Your task to perform on an android device: open the mobile data screen to see how much data has been used Image 0: 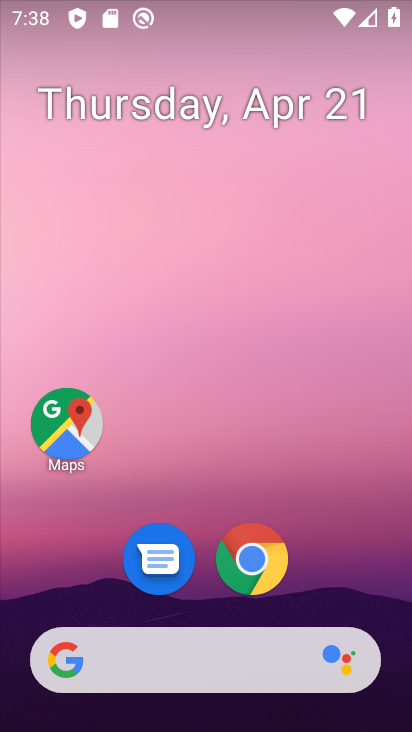
Step 0: click (192, 85)
Your task to perform on an android device: open the mobile data screen to see how much data has been used Image 1: 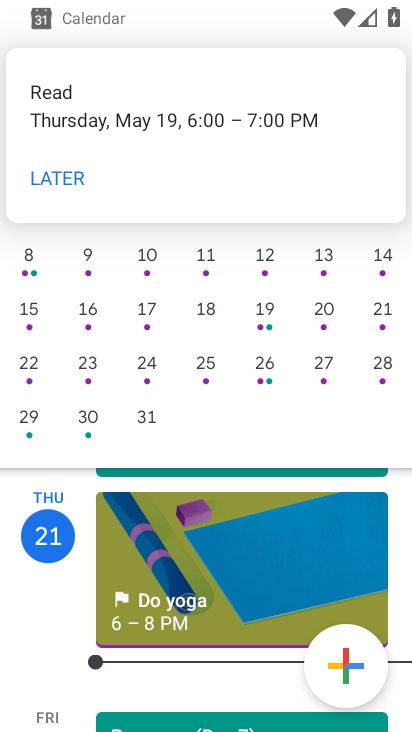
Step 1: click (76, 180)
Your task to perform on an android device: open the mobile data screen to see how much data has been used Image 2: 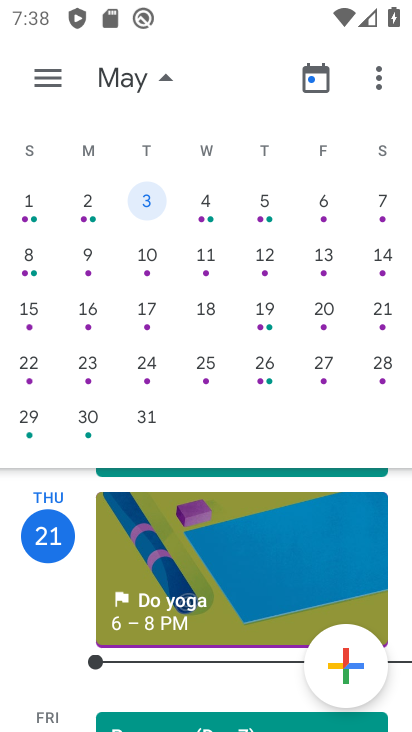
Step 2: press home button
Your task to perform on an android device: open the mobile data screen to see how much data has been used Image 3: 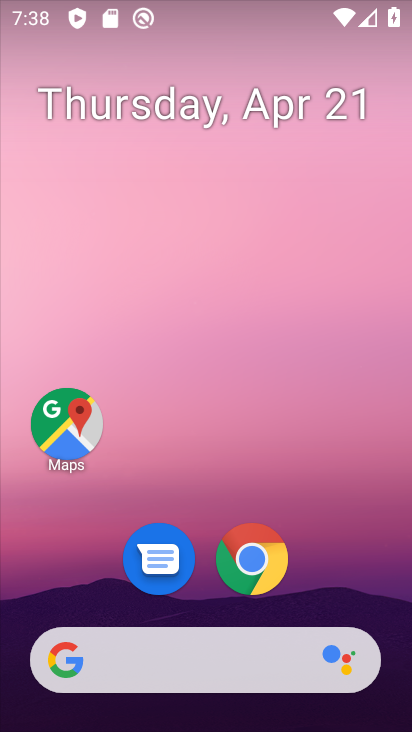
Step 3: drag from (215, 180) to (98, 116)
Your task to perform on an android device: open the mobile data screen to see how much data has been used Image 4: 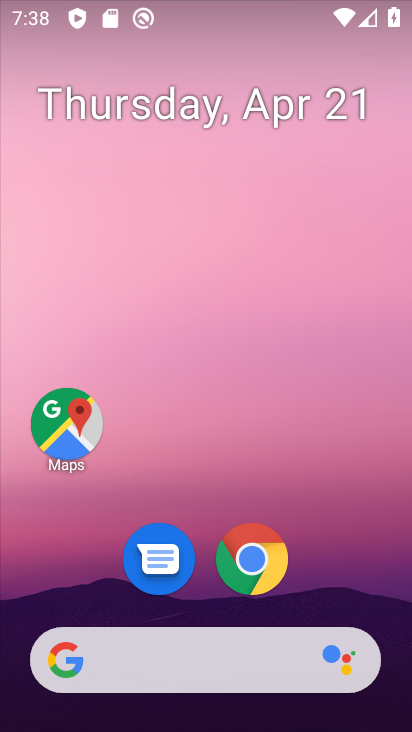
Step 4: drag from (187, 525) to (241, 30)
Your task to perform on an android device: open the mobile data screen to see how much data has been used Image 5: 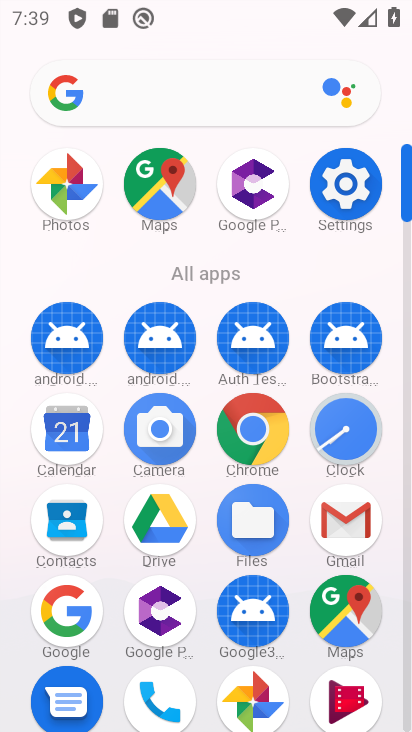
Step 5: click (361, 261)
Your task to perform on an android device: open the mobile data screen to see how much data has been used Image 6: 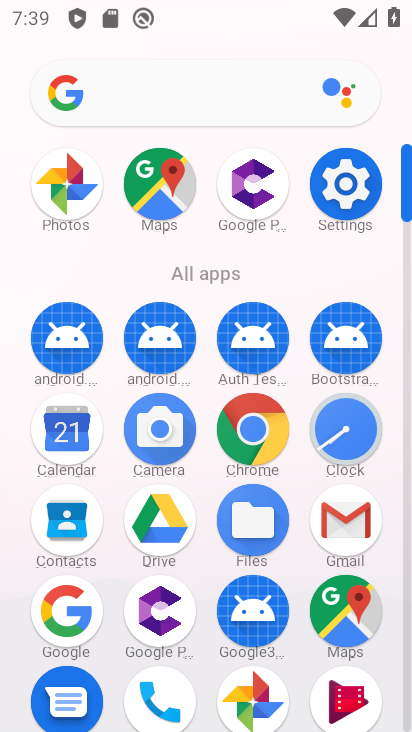
Step 6: click (343, 177)
Your task to perform on an android device: open the mobile data screen to see how much data has been used Image 7: 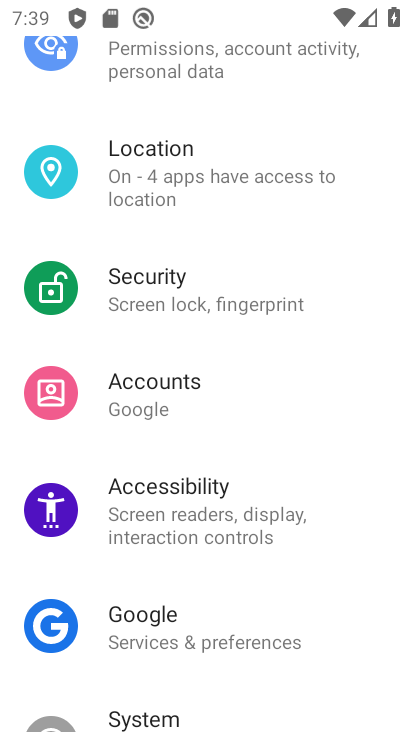
Step 7: drag from (227, 122) to (282, 660)
Your task to perform on an android device: open the mobile data screen to see how much data has been used Image 8: 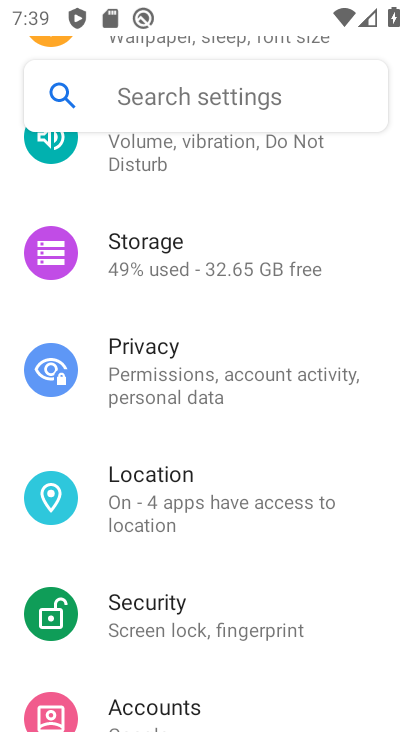
Step 8: drag from (241, 203) to (229, 628)
Your task to perform on an android device: open the mobile data screen to see how much data has been used Image 9: 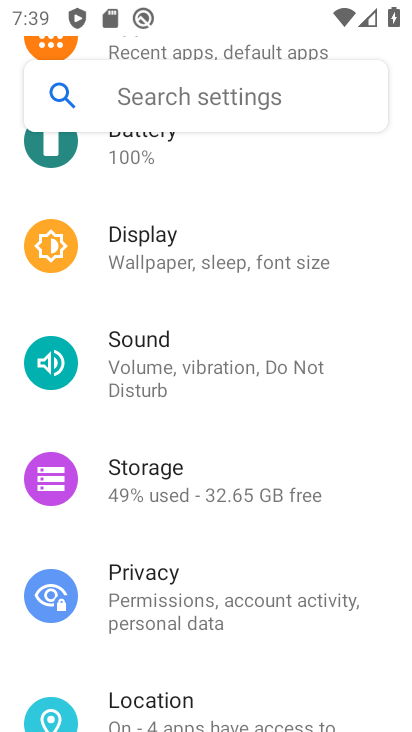
Step 9: drag from (192, 193) to (180, 664)
Your task to perform on an android device: open the mobile data screen to see how much data has been used Image 10: 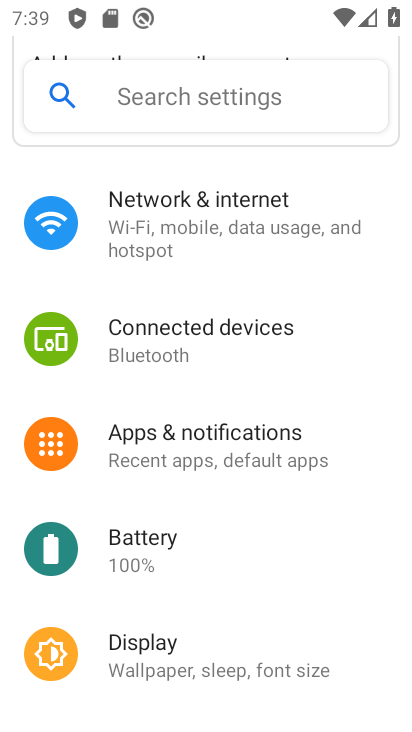
Step 10: click (174, 239)
Your task to perform on an android device: open the mobile data screen to see how much data has been used Image 11: 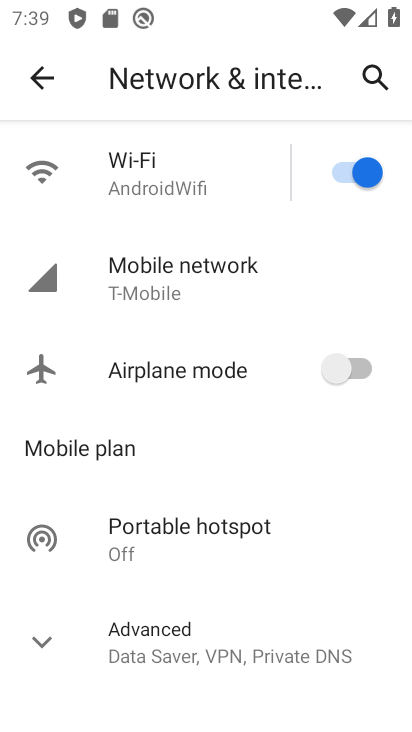
Step 11: click (181, 274)
Your task to perform on an android device: open the mobile data screen to see how much data has been used Image 12: 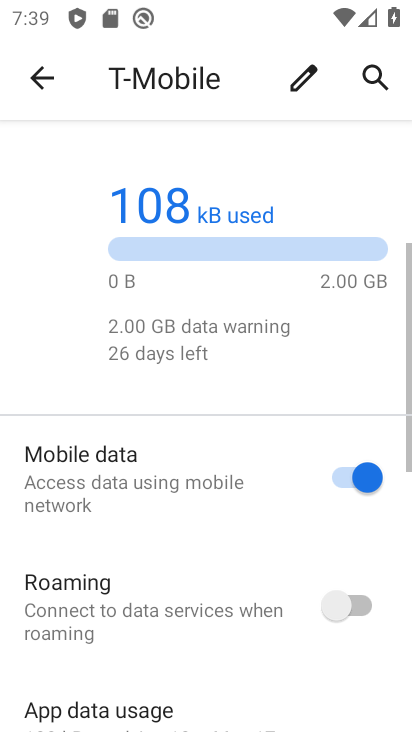
Step 12: task complete